Your task to perform on an android device: check battery use Image 0: 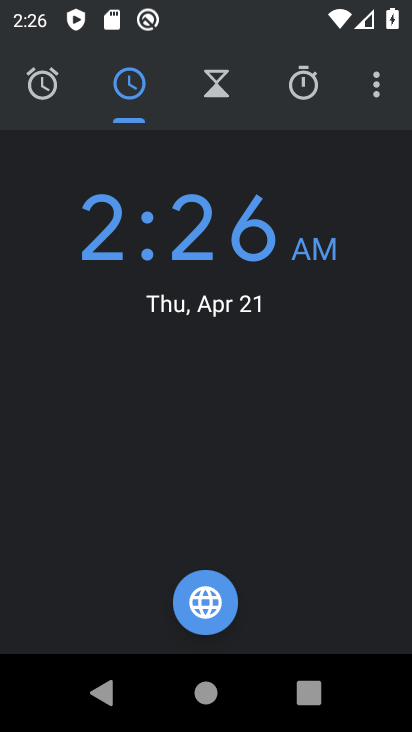
Step 0: click (371, 93)
Your task to perform on an android device: check battery use Image 1: 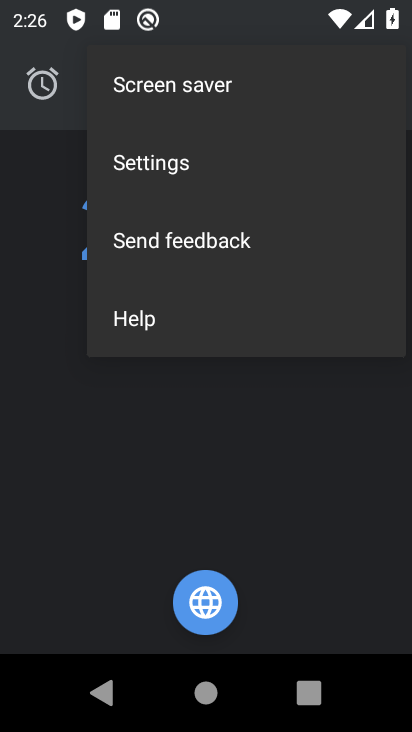
Step 1: press home button
Your task to perform on an android device: check battery use Image 2: 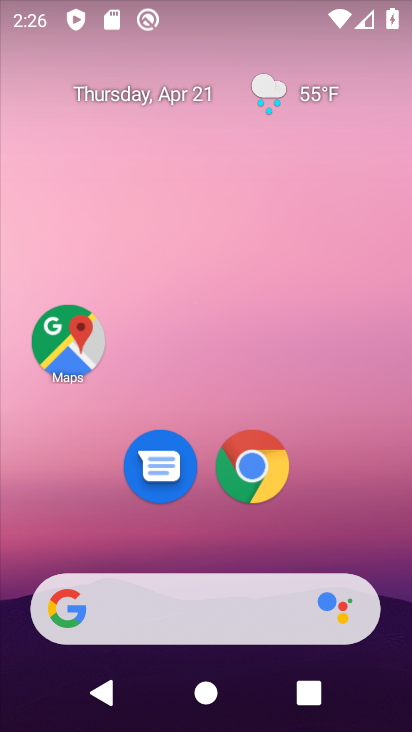
Step 2: drag from (303, 542) to (291, 34)
Your task to perform on an android device: check battery use Image 3: 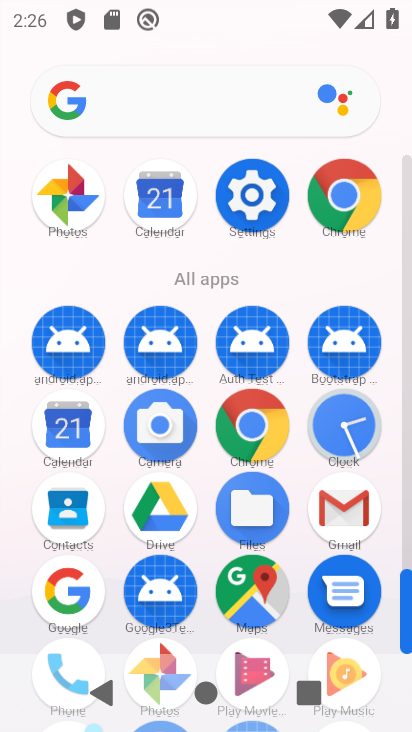
Step 3: click (262, 199)
Your task to perform on an android device: check battery use Image 4: 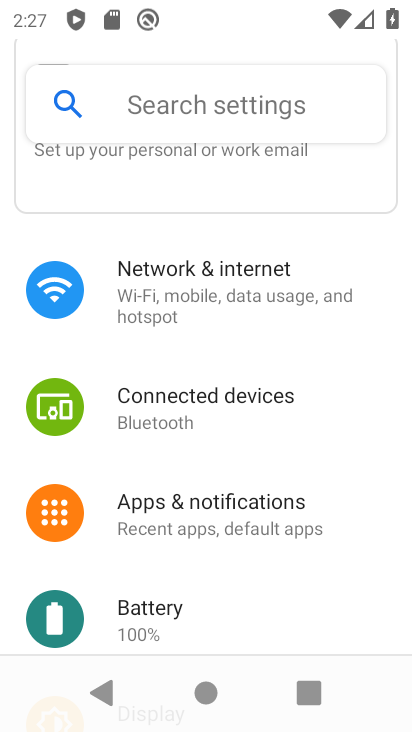
Step 4: click (215, 653)
Your task to perform on an android device: check battery use Image 5: 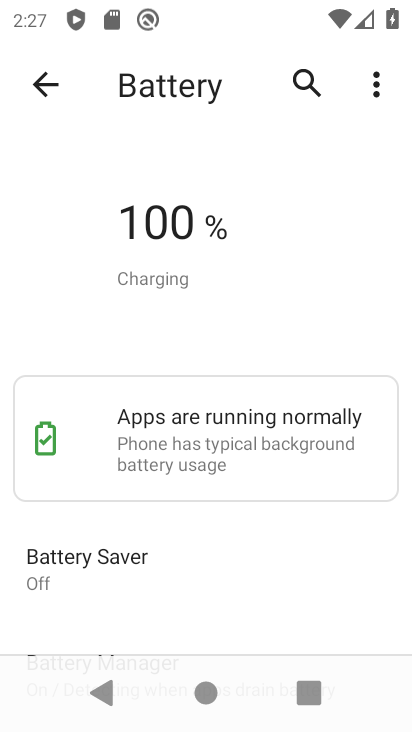
Step 5: task complete